Your task to perform on an android device: open sync settings in chrome Image 0: 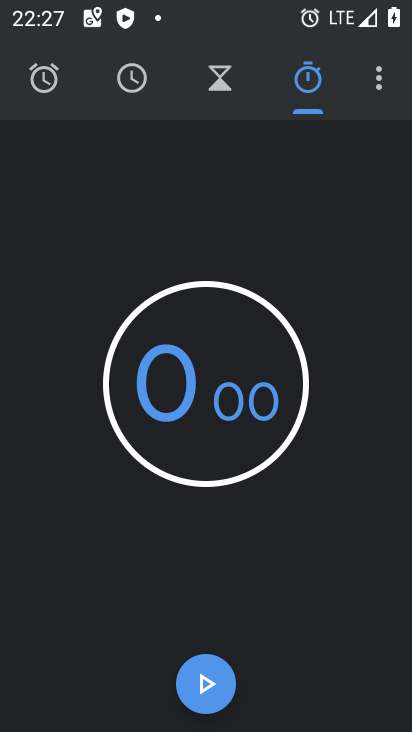
Step 0: press home button
Your task to perform on an android device: open sync settings in chrome Image 1: 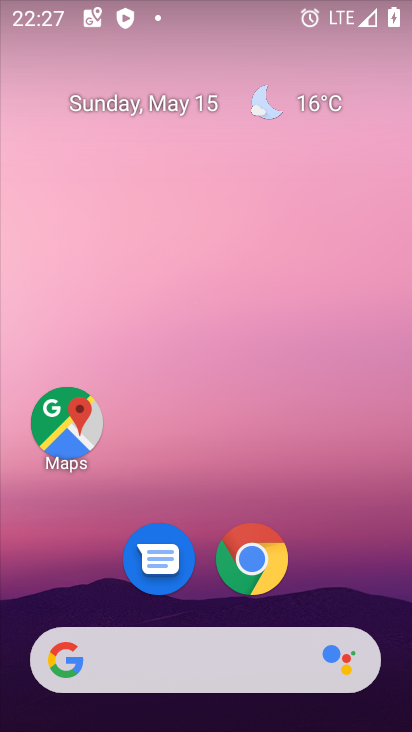
Step 1: click (254, 555)
Your task to perform on an android device: open sync settings in chrome Image 2: 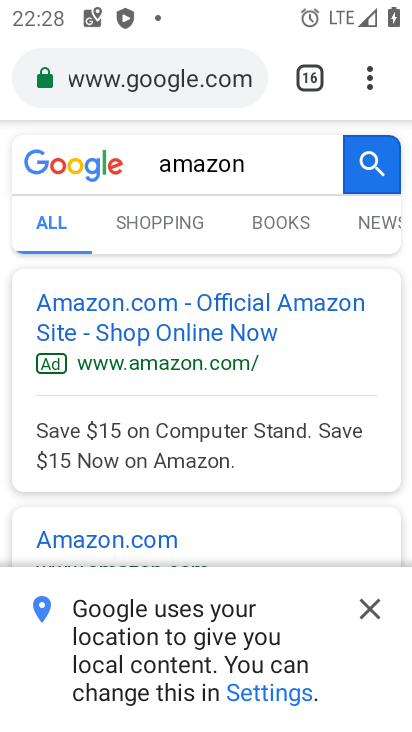
Step 2: click (372, 80)
Your task to perform on an android device: open sync settings in chrome Image 3: 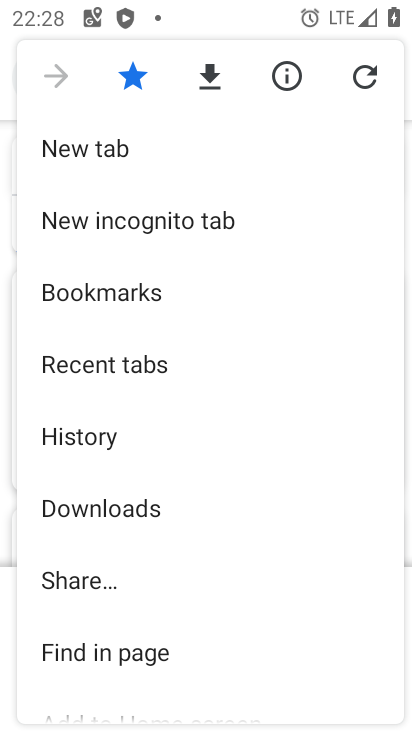
Step 3: drag from (245, 562) to (174, 200)
Your task to perform on an android device: open sync settings in chrome Image 4: 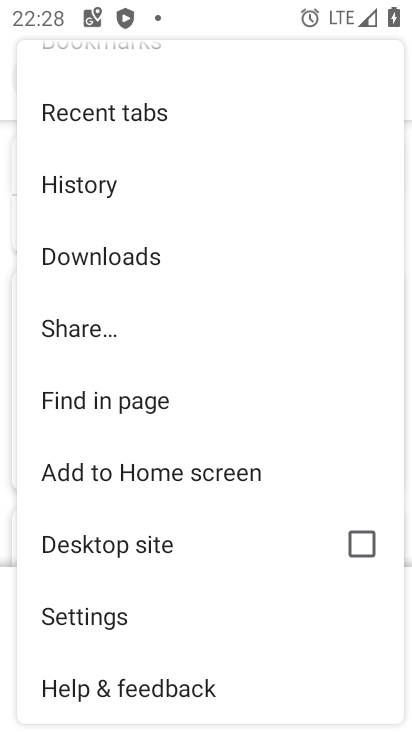
Step 4: click (85, 603)
Your task to perform on an android device: open sync settings in chrome Image 5: 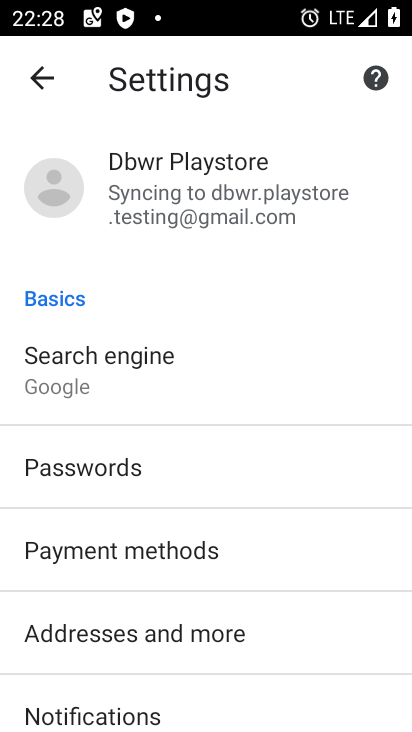
Step 5: click (158, 189)
Your task to perform on an android device: open sync settings in chrome Image 6: 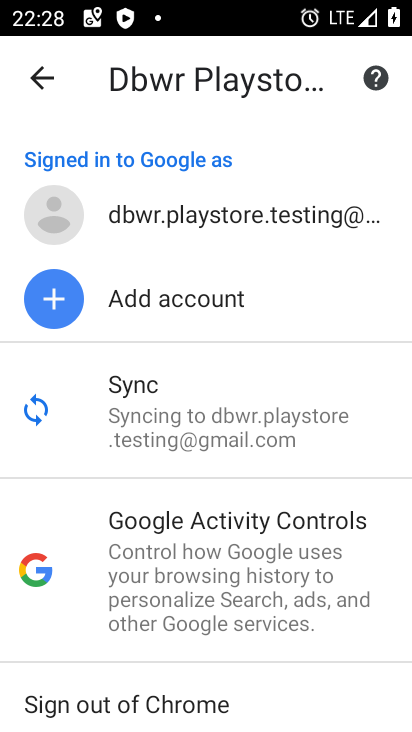
Step 6: task complete